Your task to perform on an android device: show emergency info Image 0: 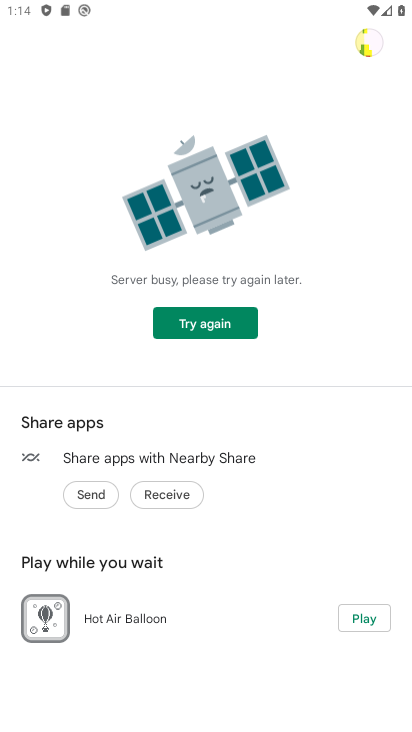
Step 0: press back button
Your task to perform on an android device: show emergency info Image 1: 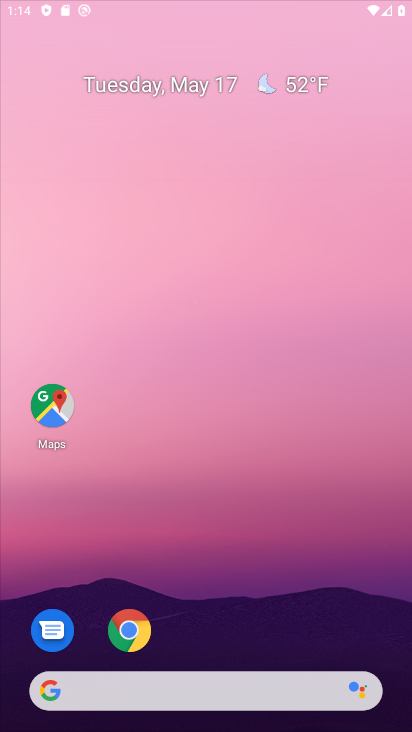
Step 1: press back button
Your task to perform on an android device: show emergency info Image 2: 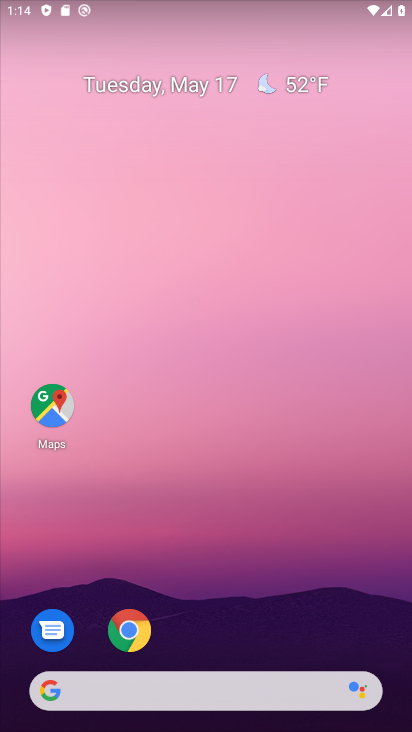
Step 2: drag from (158, 650) to (289, 134)
Your task to perform on an android device: show emergency info Image 3: 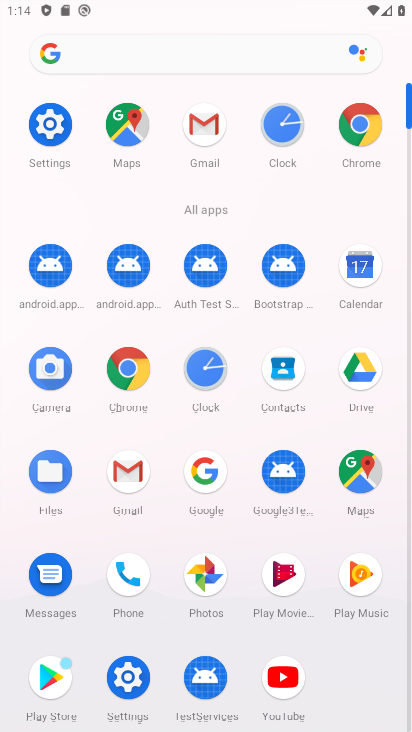
Step 3: click (52, 129)
Your task to perform on an android device: show emergency info Image 4: 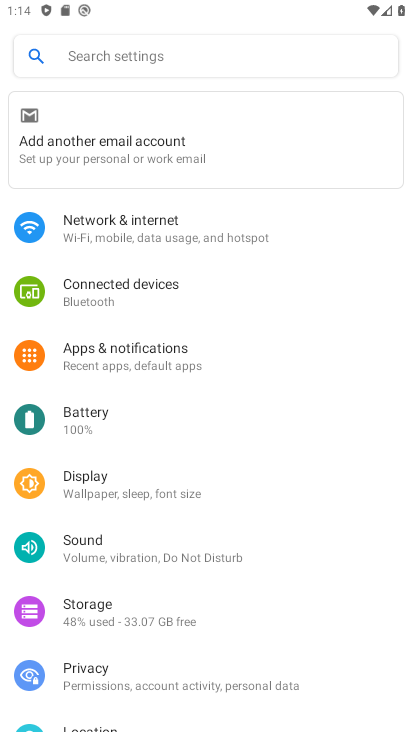
Step 4: drag from (157, 638) to (264, 104)
Your task to perform on an android device: show emergency info Image 5: 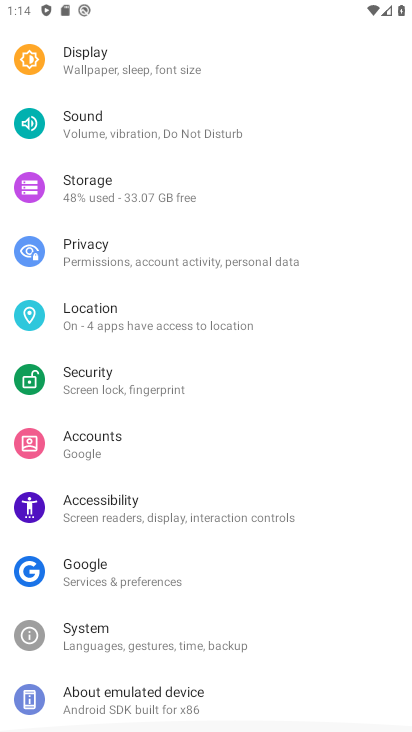
Step 5: drag from (178, 604) to (301, 4)
Your task to perform on an android device: show emergency info Image 6: 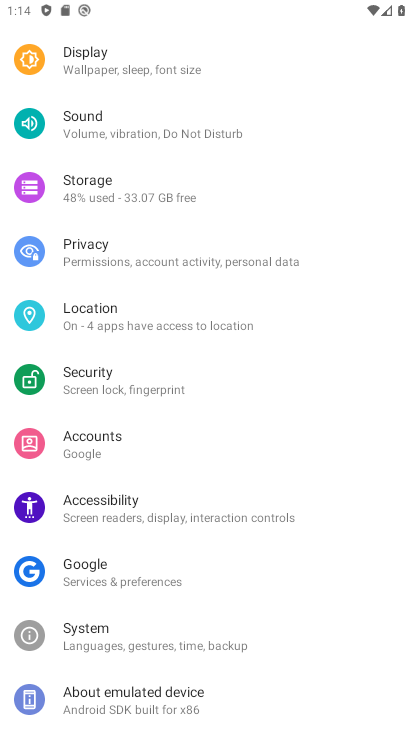
Step 6: click (166, 690)
Your task to perform on an android device: show emergency info Image 7: 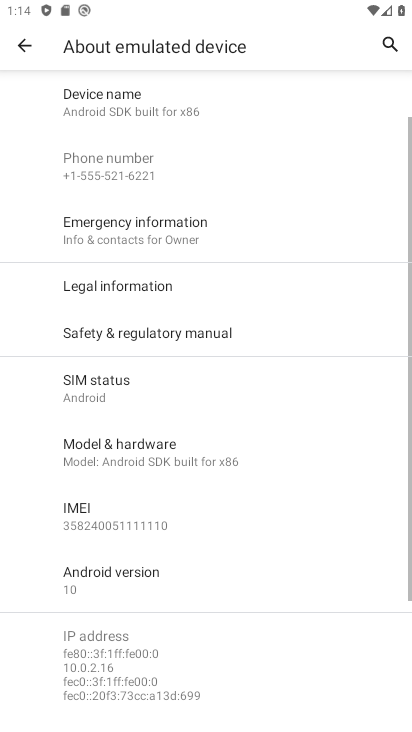
Step 7: click (116, 220)
Your task to perform on an android device: show emergency info Image 8: 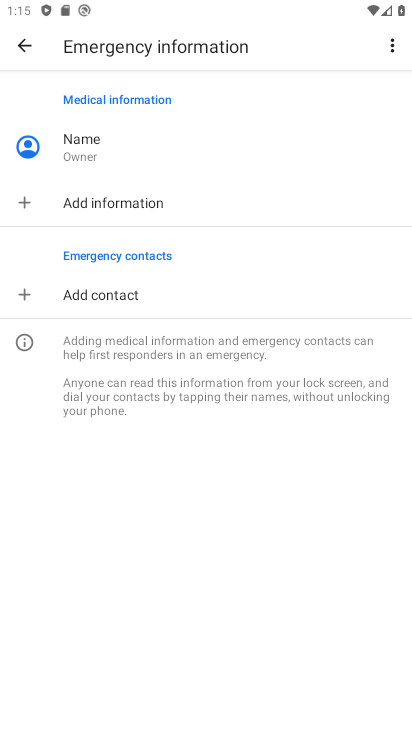
Step 8: task complete